Your task to perform on an android device: toggle wifi Image 0: 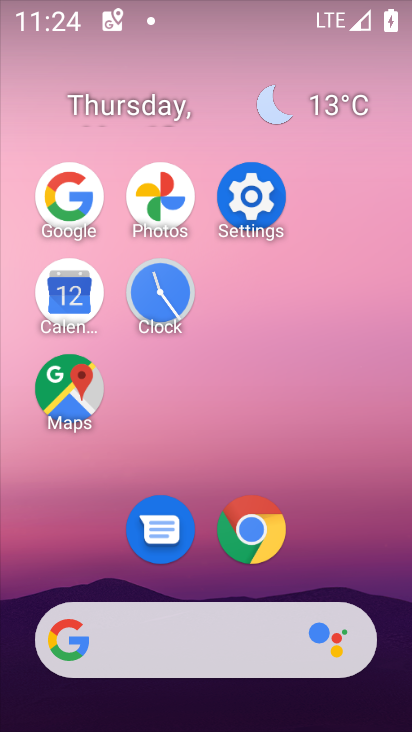
Step 0: click (245, 187)
Your task to perform on an android device: toggle wifi Image 1: 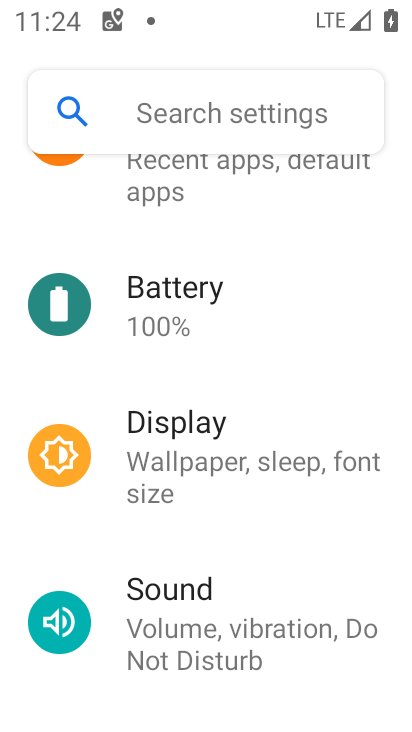
Step 1: drag from (283, 246) to (286, 728)
Your task to perform on an android device: toggle wifi Image 2: 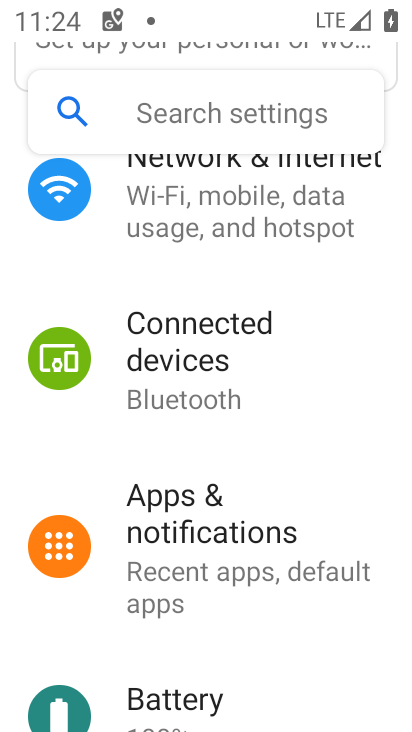
Step 2: click (258, 239)
Your task to perform on an android device: toggle wifi Image 3: 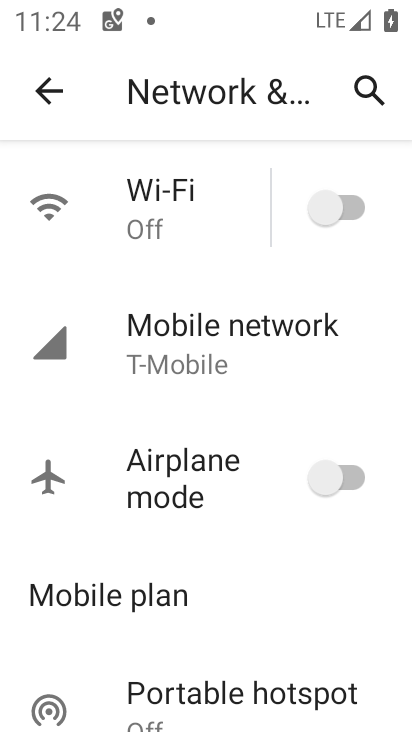
Step 3: click (309, 233)
Your task to perform on an android device: toggle wifi Image 4: 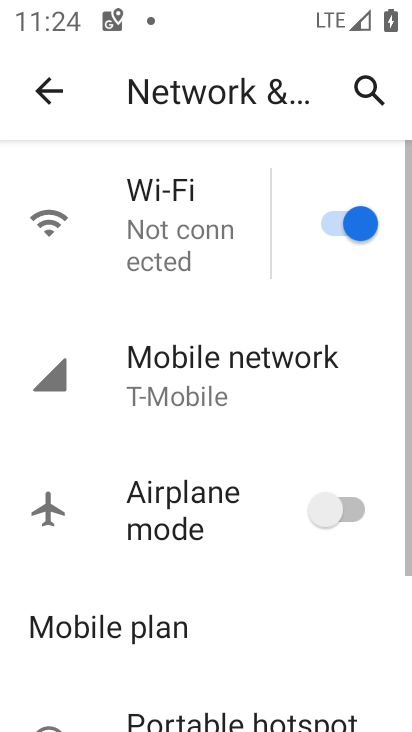
Step 4: task complete